Your task to perform on an android device: Open network settings Image 0: 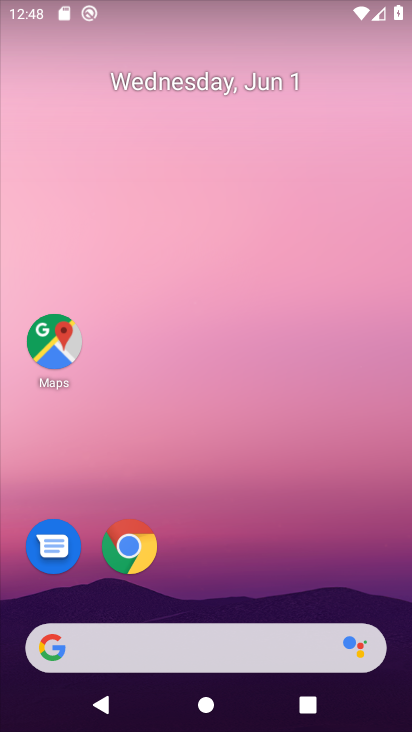
Step 0: drag from (244, 574) to (244, 68)
Your task to perform on an android device: Open network settings Image 1: 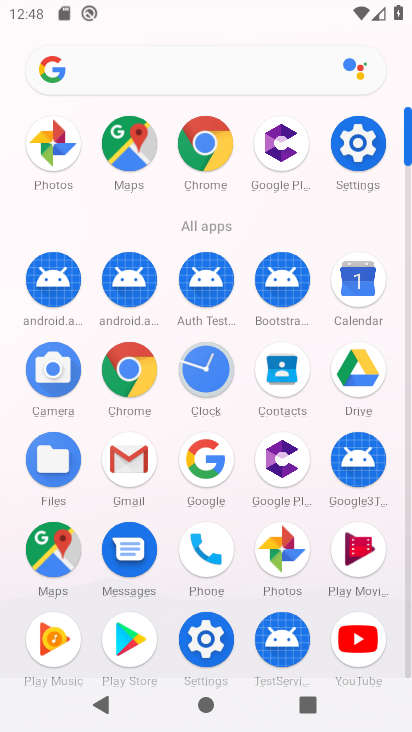
Step 1: click (368, 146)
Your task to perform on an android device: Open network settings Image 2: 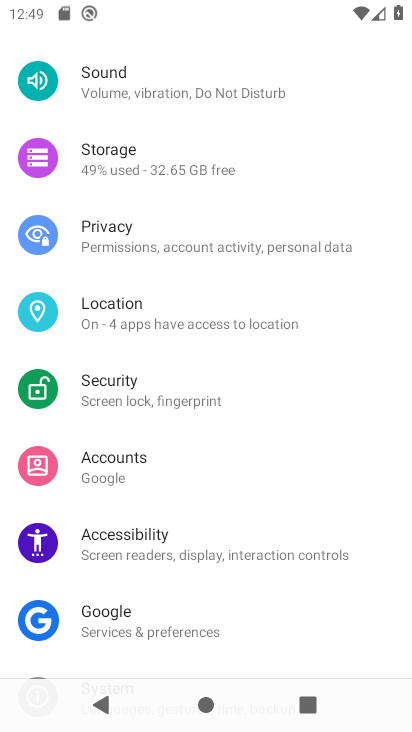
Step 2: drag from (200, 164) to (188, 578)
Your task to perform on an android device: Open network settings Image 3: 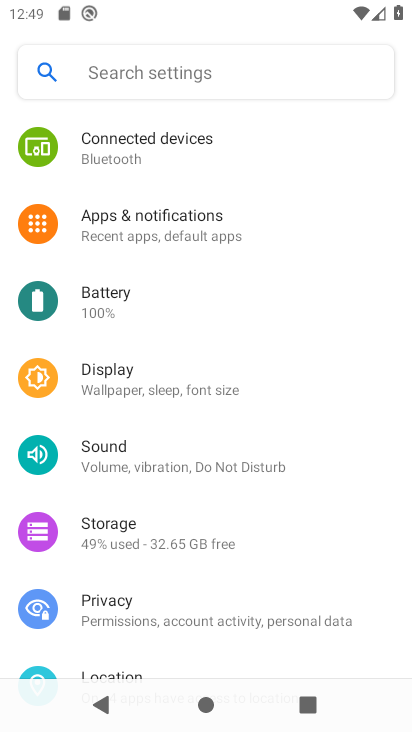
Step 3: drag from (193, 279) to (194, 623)
Your task to perform on an android device: Open network settings Image 4: 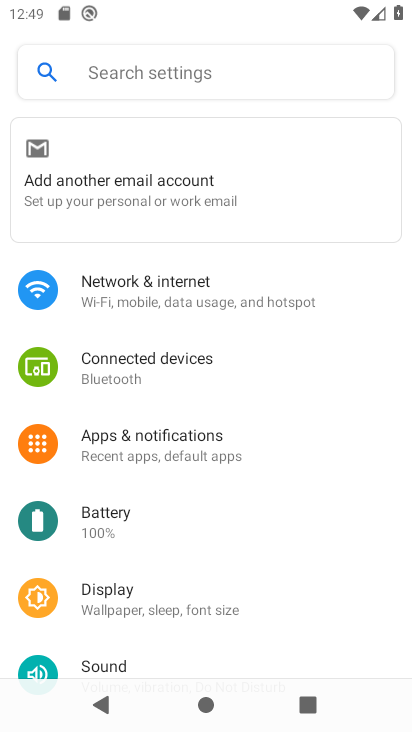
Step 4: click (136, 290)
Your task to perform on an android device: Open network settings Image 5: 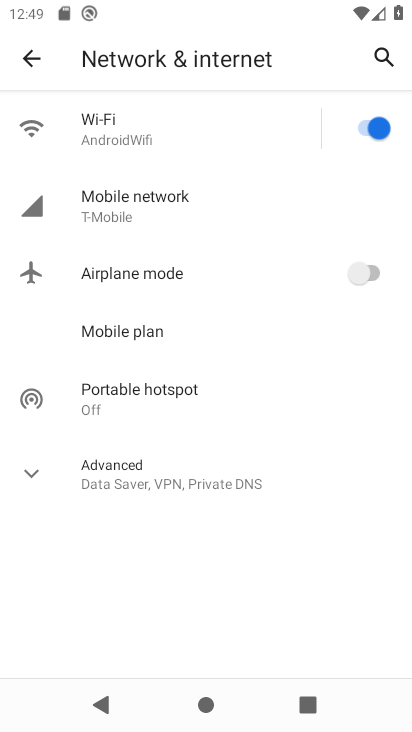
Step 5: task complete